Your task to perform on an android device: Open calendar and show me the third week of next month Image 0: 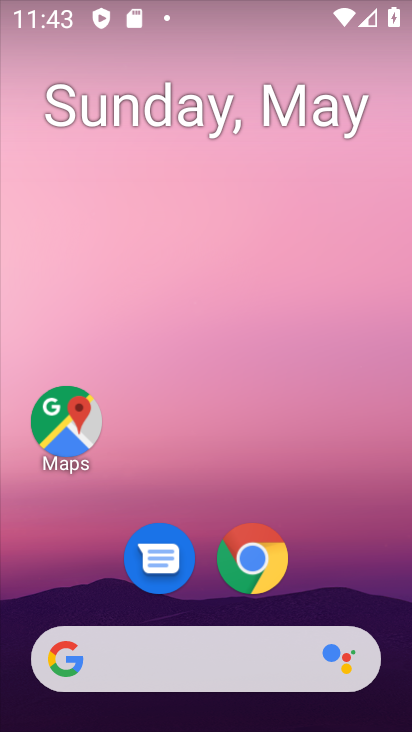
Step 0: drag from (369, 564) to (343, 123)
Your task to perform on an android device: Open calendar and show me the third week of next month Image 1: 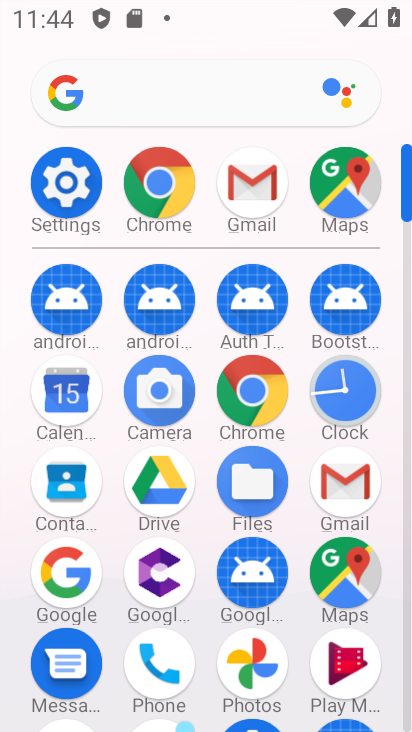
Step 1: click (65, 403)
Your task to perform on an android device: Open calendar and show me the third week of next month Image 2: 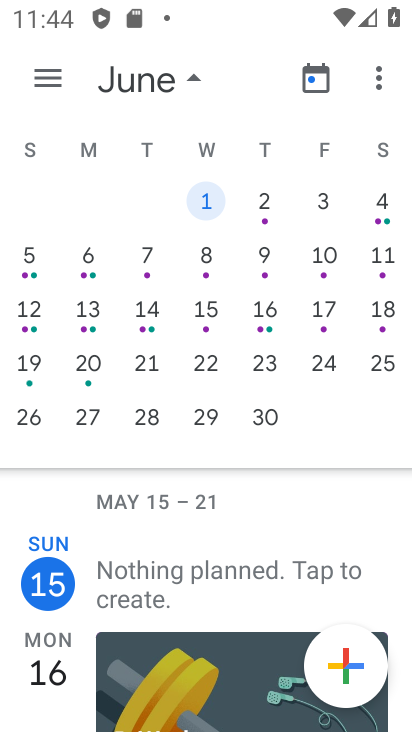
Step 2: click (90, 316)
Your task to perform on an android device: Open calendar and show me the third week of next month Image 3: 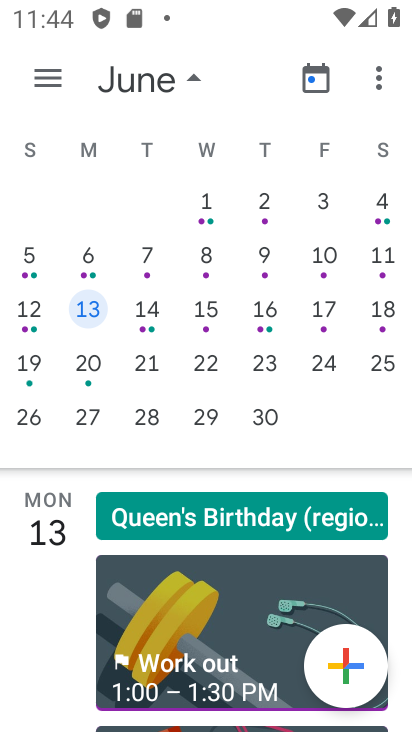
Step 3: task complete